Your task to perform on an android device: Open maps Image 0: 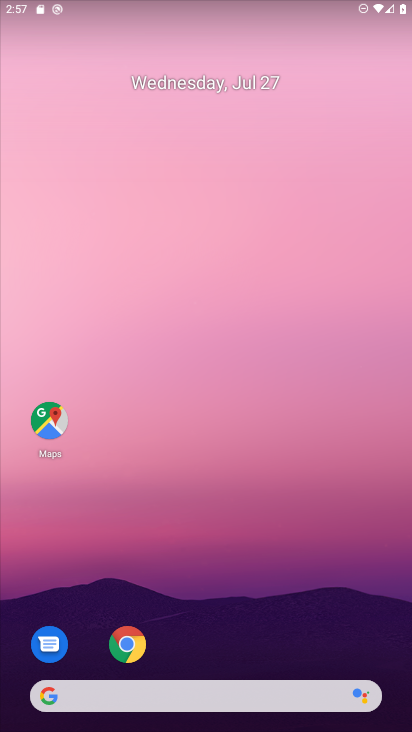
Step 0: click (55, 414)
Your task to perform on an android device: Open maps Image 1: 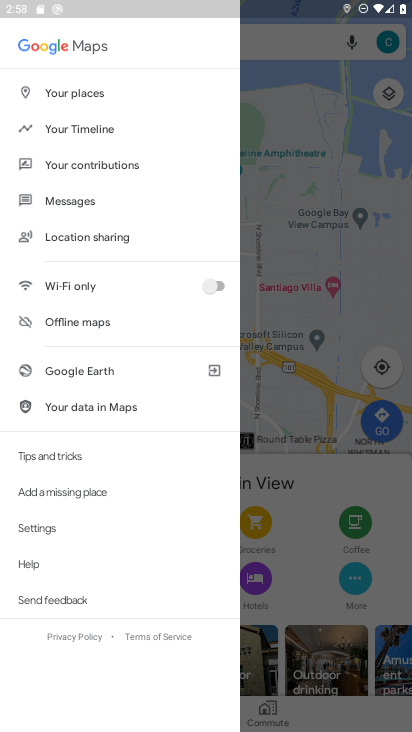
Step 1: task complete